Your task to perform on an android device: Go to accessibility settings Image 0: 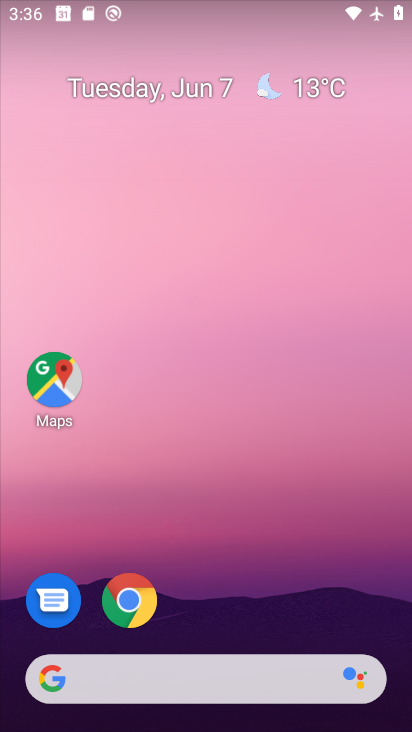
Step 0: drag from (303, 605) to (315, 194)
Your task to perform on an android device: Go to accessibility settings Image 1: 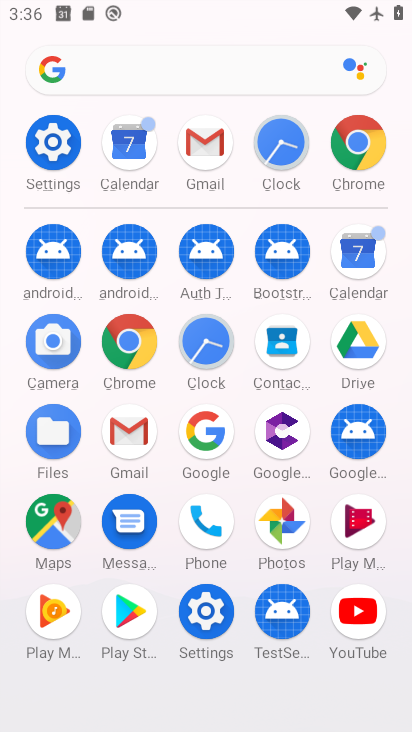
Step 1: click (59, 153)
Your task to perform on an android device: Go to accessibility settings Image 2: 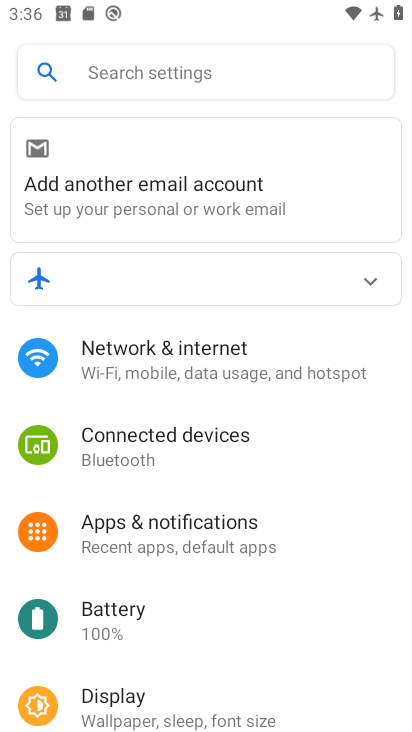
Step 2: drag from (273, 560) to (264, 232)
Your task to perform on an android device: Go to accessibility settings Image 3: 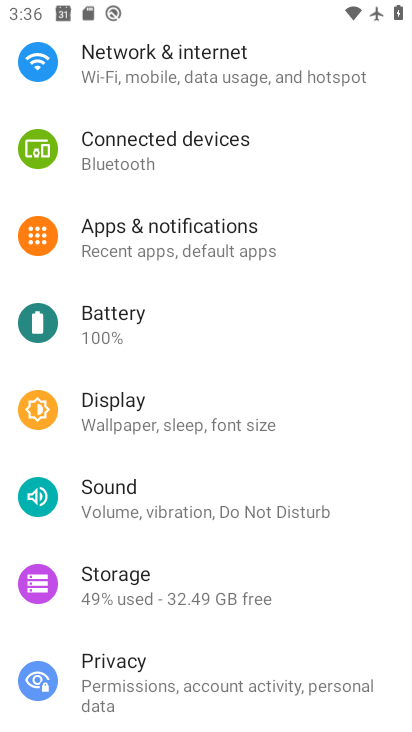
Step 3: drag from (288, 564) to (259, 156)
Your task to perform on an android device: Go to accessibility settings Image 4: 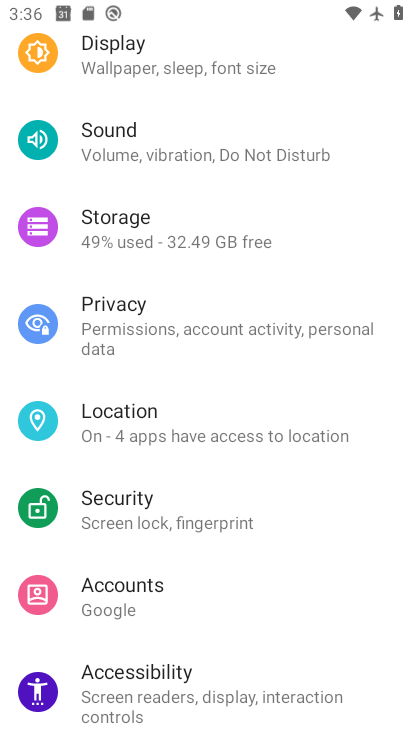
Step 4: click (155, 685)
Your task to perform on an android device: Go to accessibility settings Image 5: 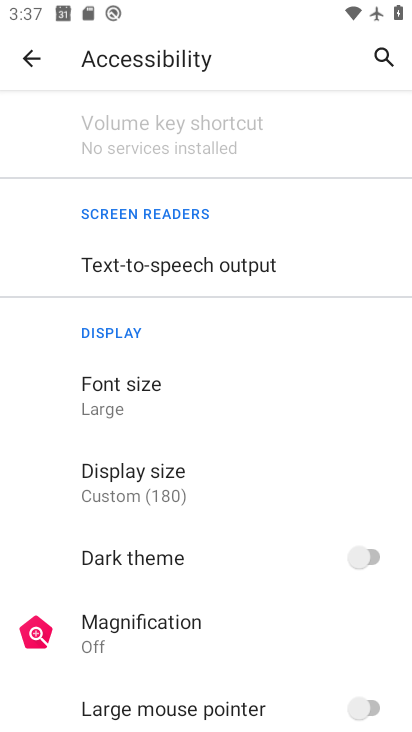
Step 5: task complete